Your task to perform on an android device: When is my next meeting? Image 0: 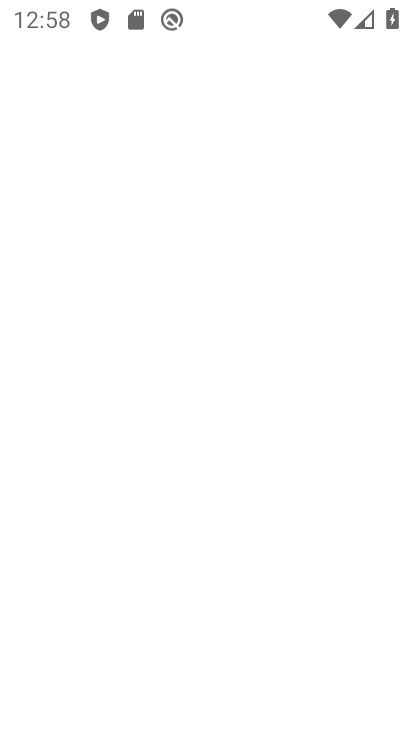
Step 0: press home button
Your task to perform on an android device: When is my next meeting? Image 1: 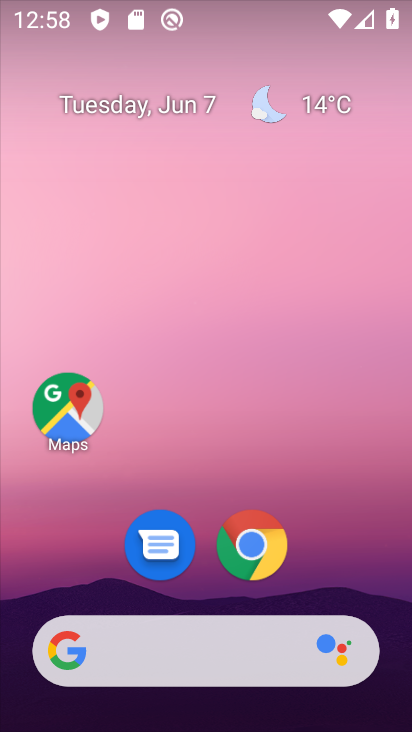
Step 1: drag from (356, 533) to (408, 134)
Your task to perform on an android device: When is my next meeting? Image 2: 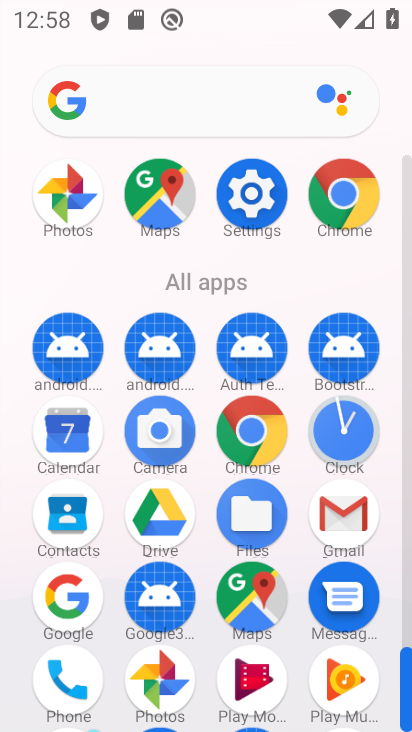
Step 2: click (257, 455)
Your task to perform on an android device: When is my next meeting? Image 3: 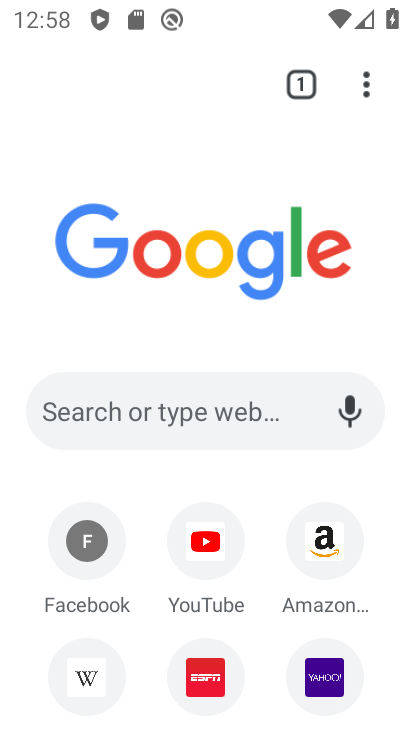
Step 3: click (238, 428)
Your task to perform on an android device: When is my next meeting? Image 4: 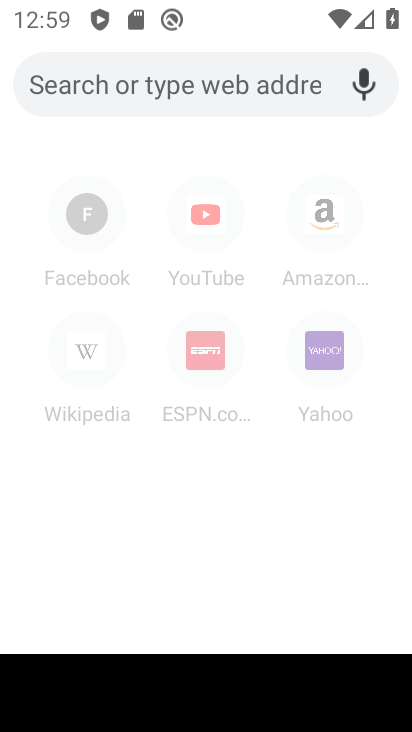
Step 4: type "when is my next mee"
Your task to perform on an android device: When is my next meeting? Image 5: 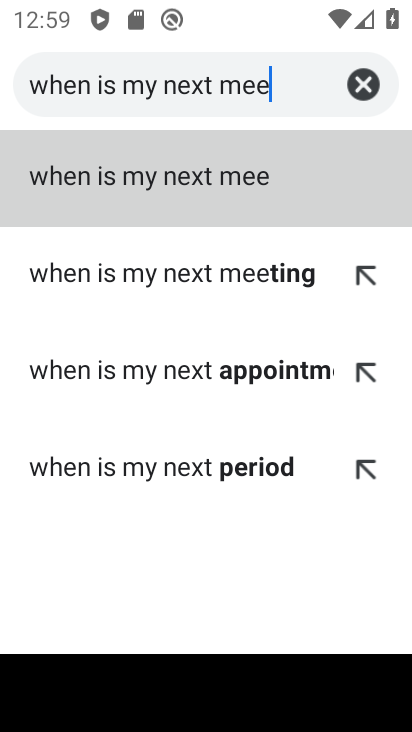
Step 5: press home button
Your task to perform on an android device: When is my next meeting? Image 6: 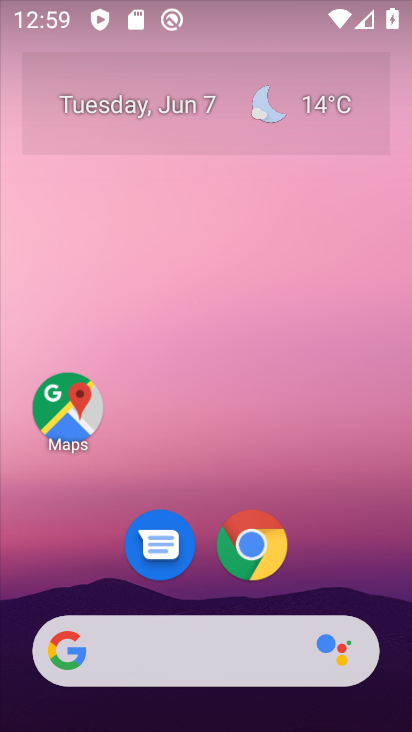
Step 6: drag from (325, 546) to (334, 160)
Your task to perform on an android device: When is my next meeting? Image 7: 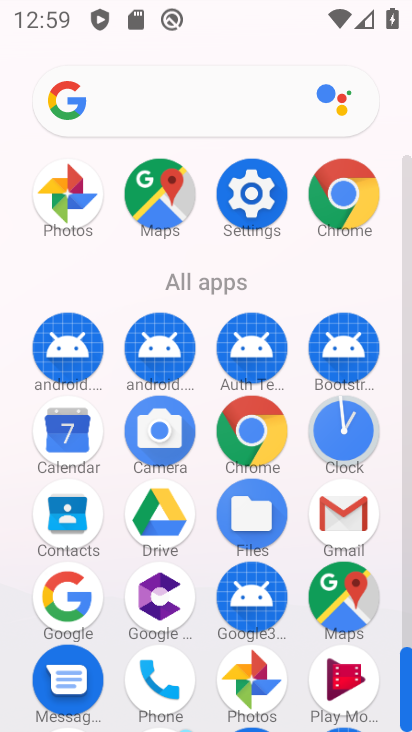
Step 7: click (72, 437)
Your task to perform on an android device: When is my next meeting? Image 8: 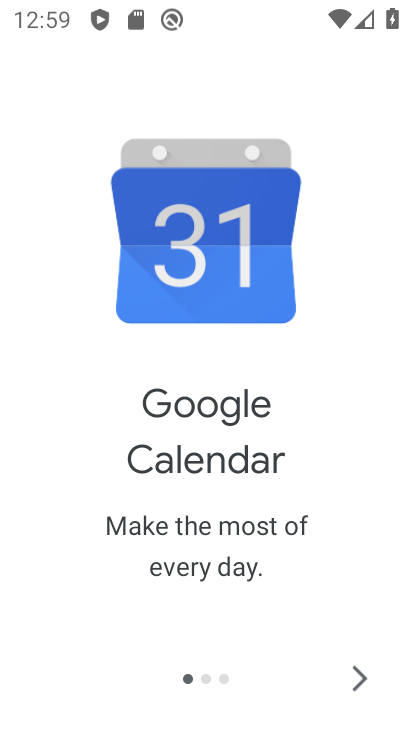
Step 8: click (359, 680)
Your task to perform on an android device: When is my next meeting? Image 9: 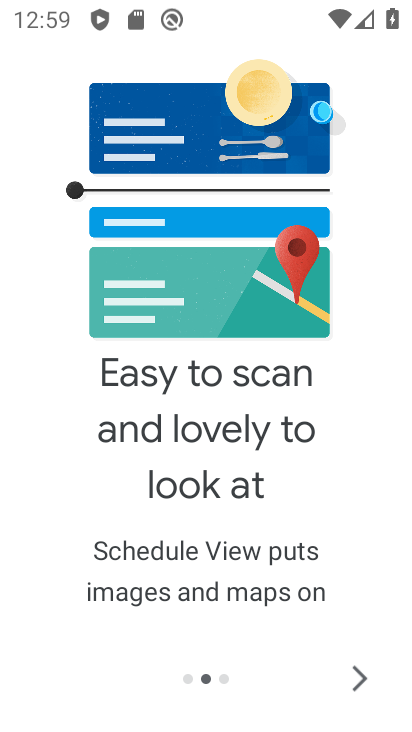
Step 9: click (358, 679)
Your task to perform on an android device: When is my next meeting? Image 10: 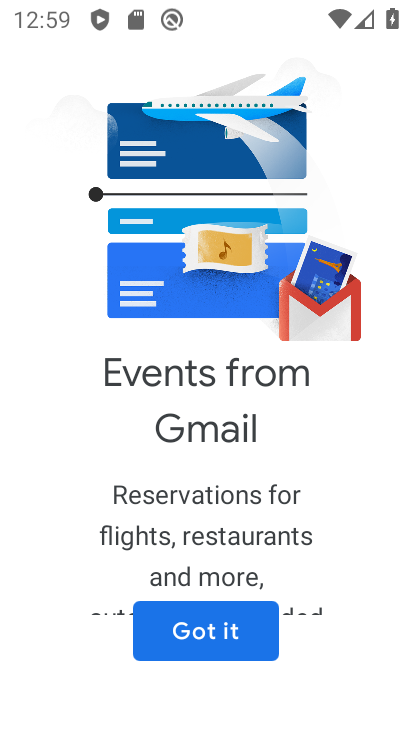
Step 10: click (221, 630)
Your task to perform on an android device: When is my next meeting? Image 11: 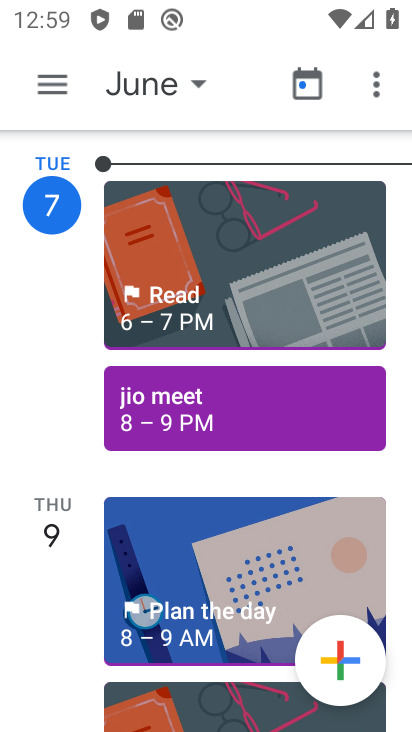
Step 11: task complete